Your task to perform on an android device: Set the phone to "Do not disturb". Image 0: 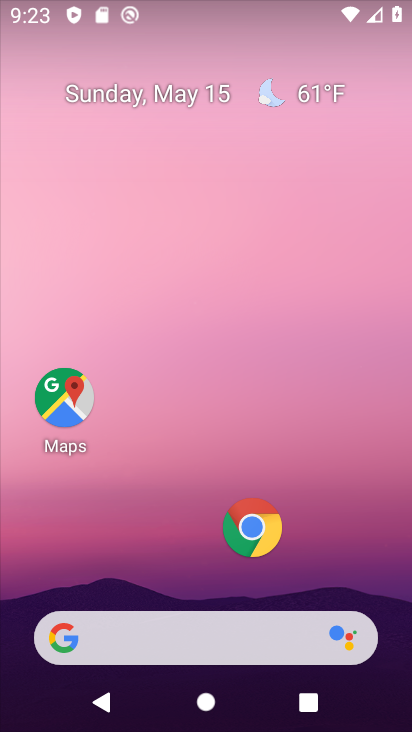
Step 0: press home button
Your task to perform on an android device: Set the phone to "Do not disturb". Image 1: 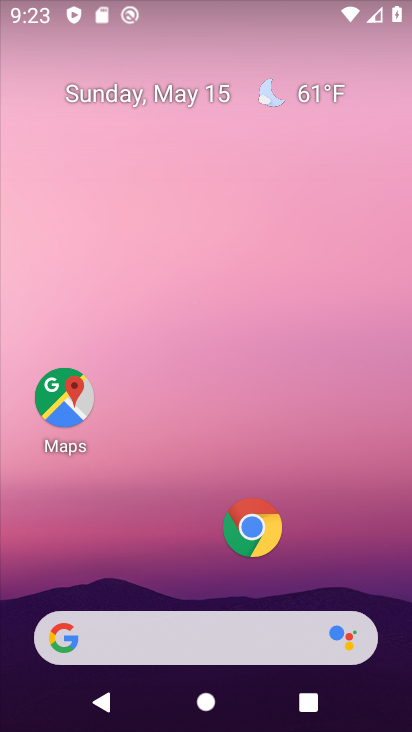
Step 1: drag from (168, 4) to (104, 610)
Your task to perform on an android device: Set the phone to "Do not disturb". Image 2: 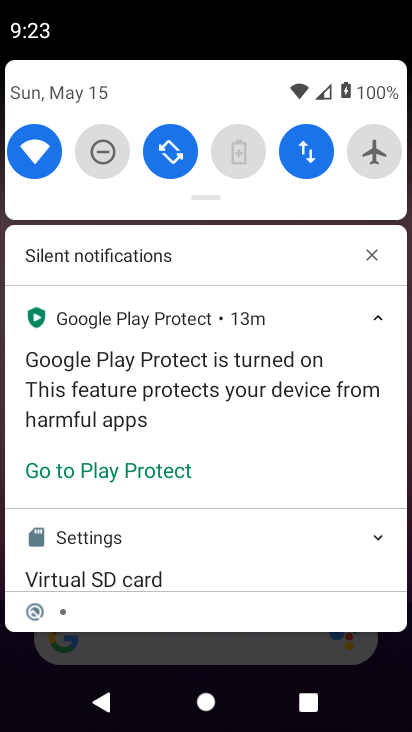
Step 2: click (103, 150)
Your task to perform on an android device: Set the phone to "Do not disturb". Image 3: 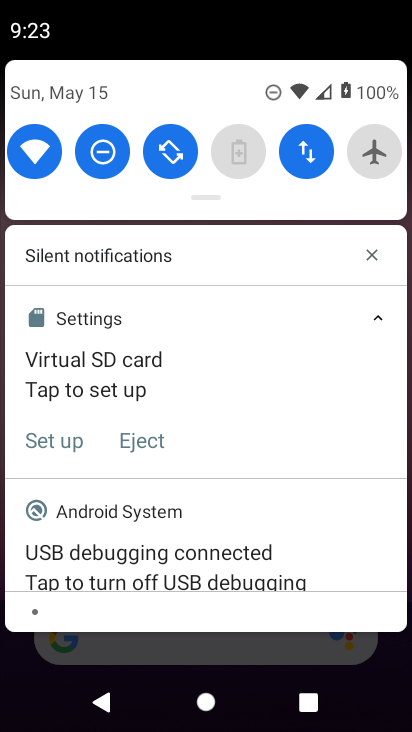
Step 3: task complete